Your task to perform on an android device: Is it going to rain this weekend? Image 0: 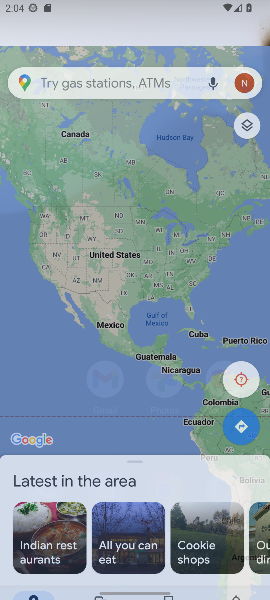
Step 0: press home button
Your task to perform on an android device: Is it going to rain this weekend? Image 1: 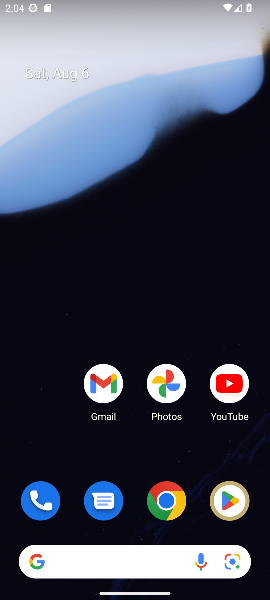
Step 1: click (40, 567)
Your task to perform on an android device: Is it going to rain this weekend? Image 2: 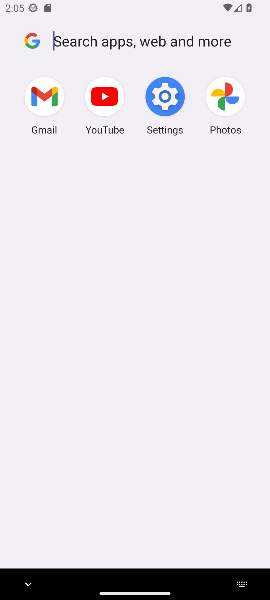
Step 2: type "rain this weekend?"
Your task to perform on an android device: Is it going to rain this weekend? Image 3: 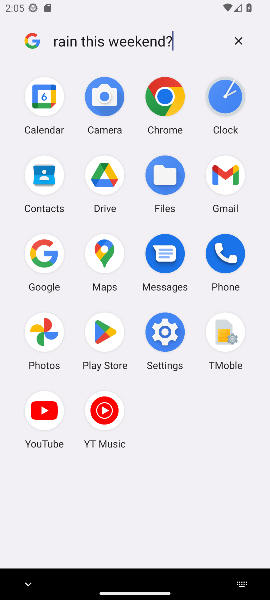
Step 3: press home button
Your task to perform on an android device: Is it going to rain this weekend? Image 4: 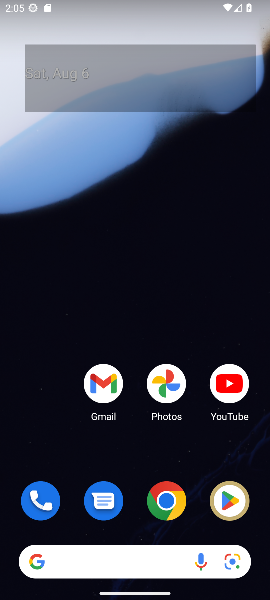
Step 4: drag from (126, 522) to (187, 56)
Your task to perform on an android device: Is it going to rain this weekend? Image 5: 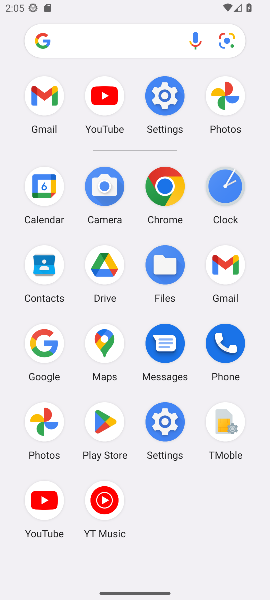
Step 5: click (39, 348)
Your task to perform on an android device: Is it going to rain this weekend? Image 6: 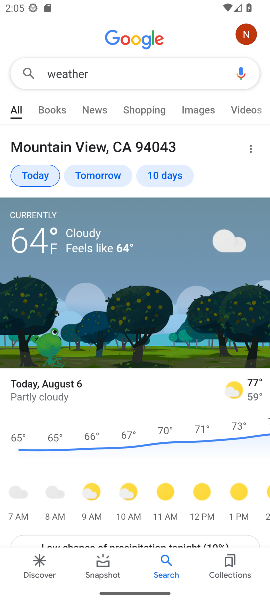
Step 6: click (92, 71)
Your task to perform on an android device: Is it going to rain this weekend? Image 7: 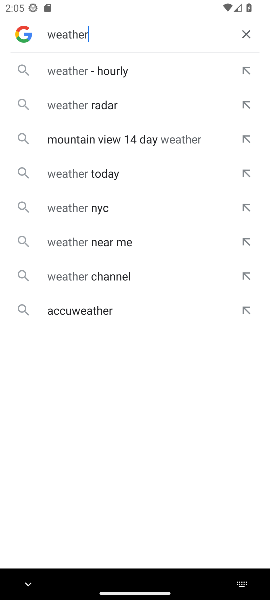
Step 7: click (253, 31)
Your task to perform on an android device: Is it going to rain this weekend? Image 8: 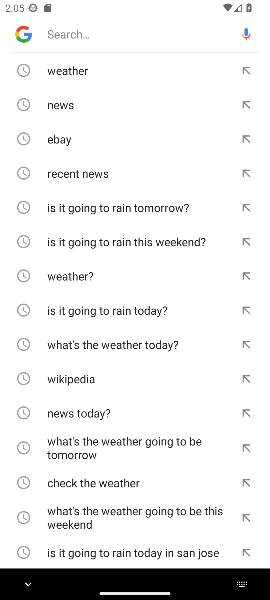
Step 8: type "rain this weekend?"
Your task to perform on an android device: Is it going to rain this weekend? Image 9: 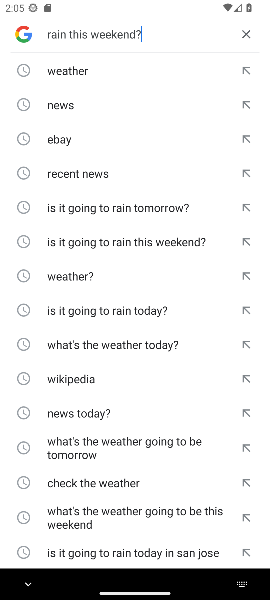
Step 9: press enter
Your task to perform on an android device: Is it going to rain this weekend? Image 10: 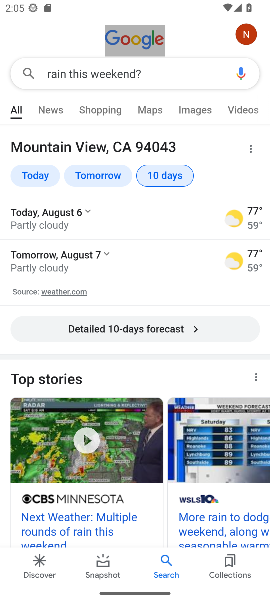
Step 10: task complete